Your task to perform on an android device: View the shopping cart on newegg.com. Image 0: 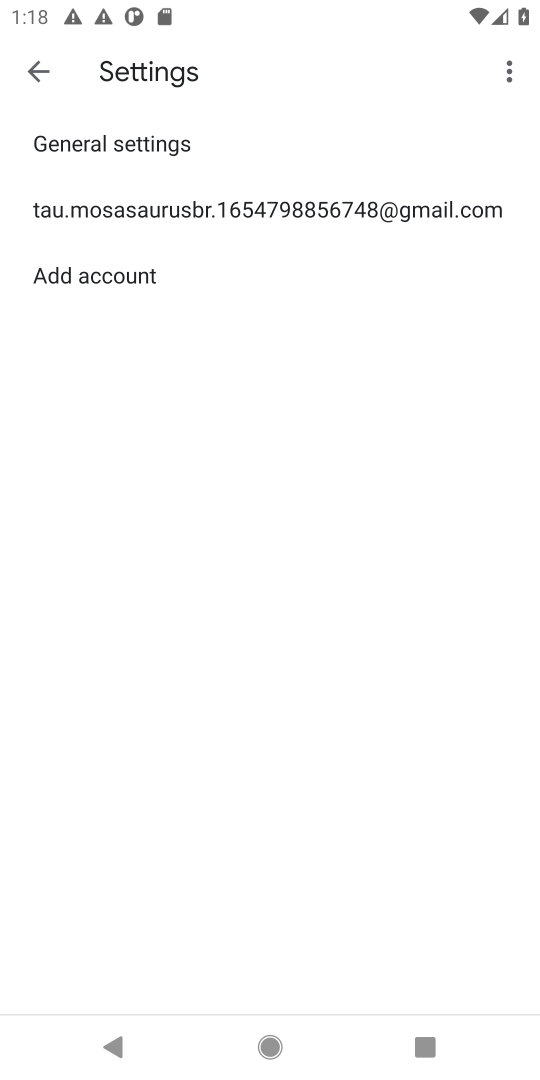
Step 0: press home button
Your task to perform on an android device: View the shopping cart on newegg.com. Image 1: 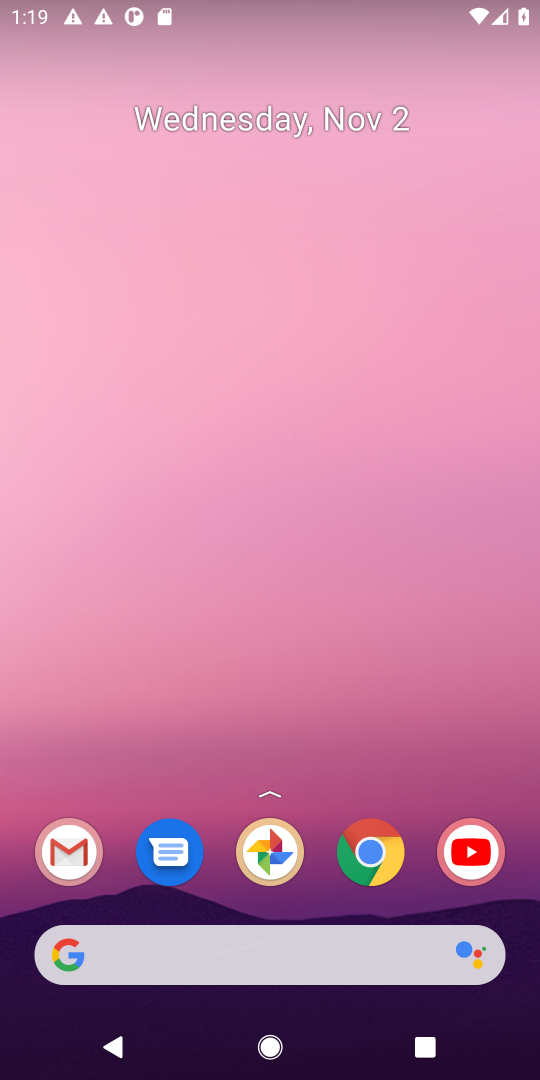
Step 1: click (60, 951)
Your task to perform on an android device: View the shopping cart on newegg.com. Image 2: 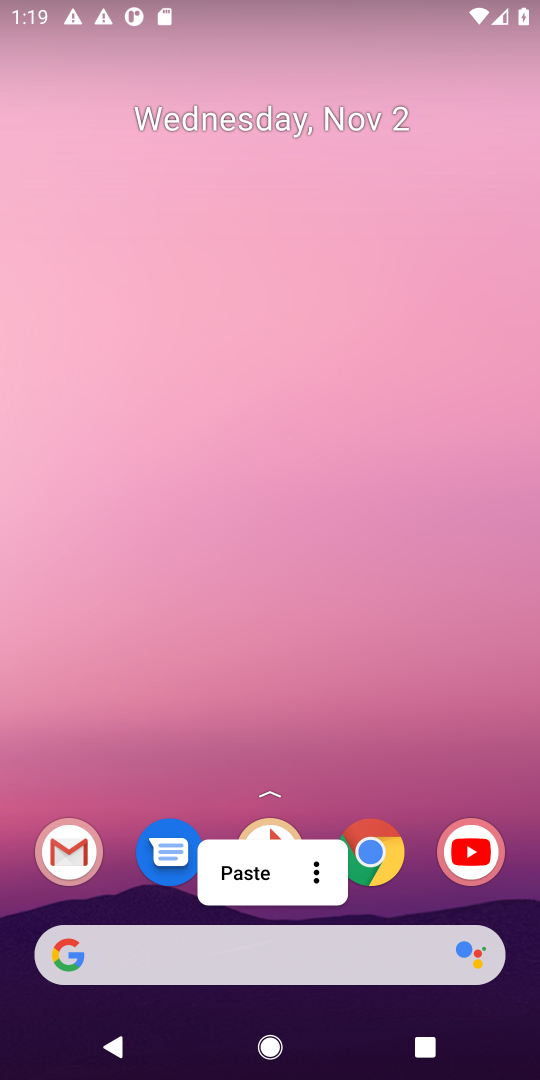
Step 2: click (69, 959)
Your task to perform on an android device: View the shopping cart on newegg.com. Image 3: 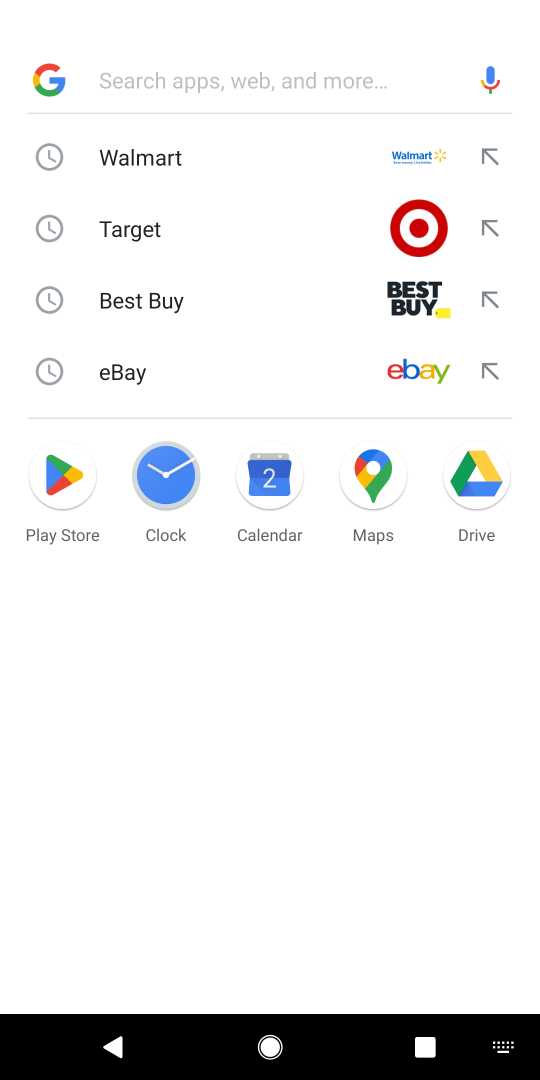
Step 3: type "newegg.com."
Your task to perform on an android device: View the shopping cart on newegg.com. Image 4: 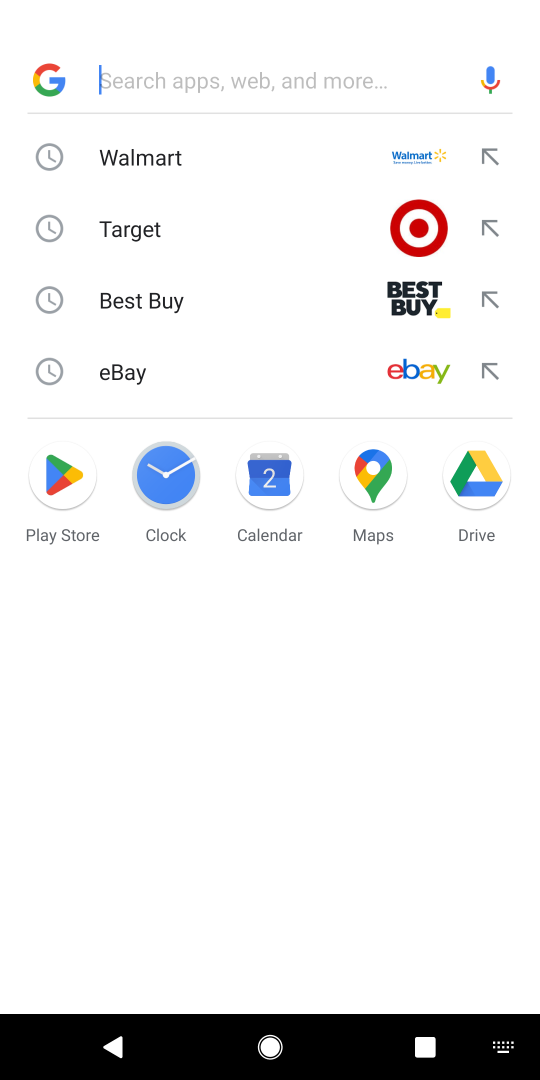
Step 4: click (142, 79)
Your task to perform on an android device: View the shopping cart on newegg.com. Image 5: 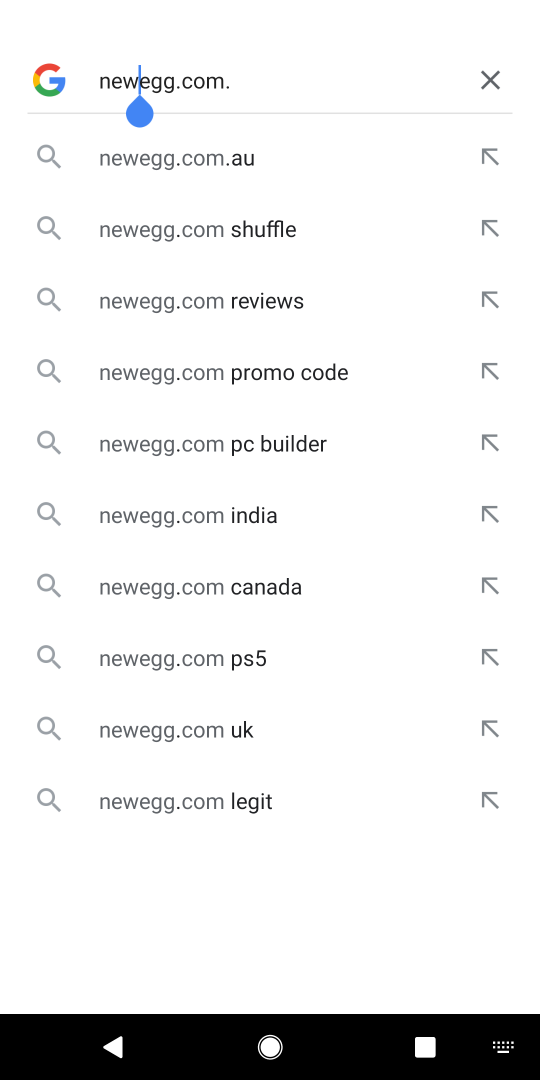
Step 5: press enter
Your task to perform on an android device: View the shopping cart on newegg.com. Image 6: 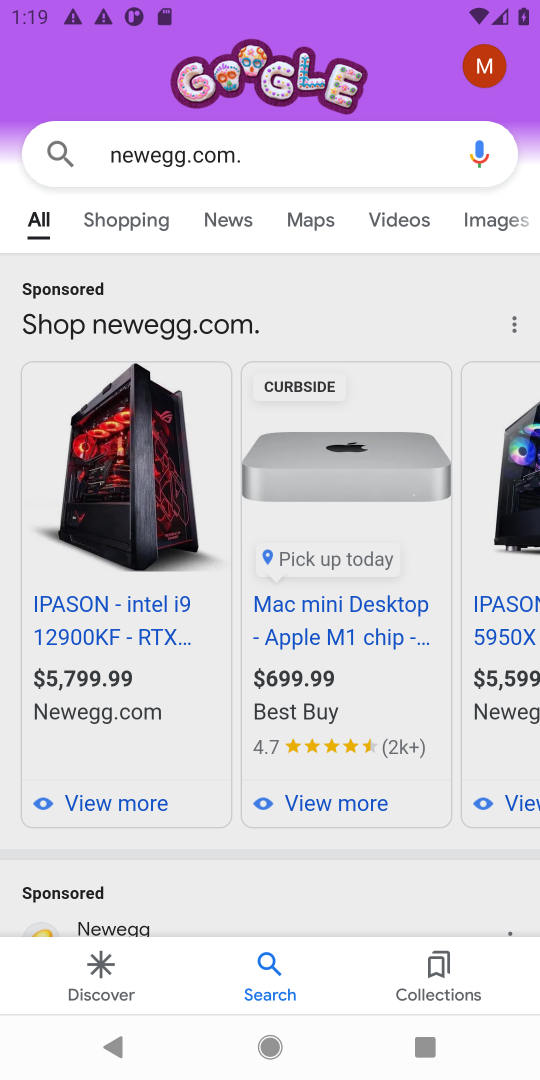
Step 6: drag from (229, 892) to (219, 351)
Your task to perform on an android device: View the shopping cart on newegg.com. Image 7: 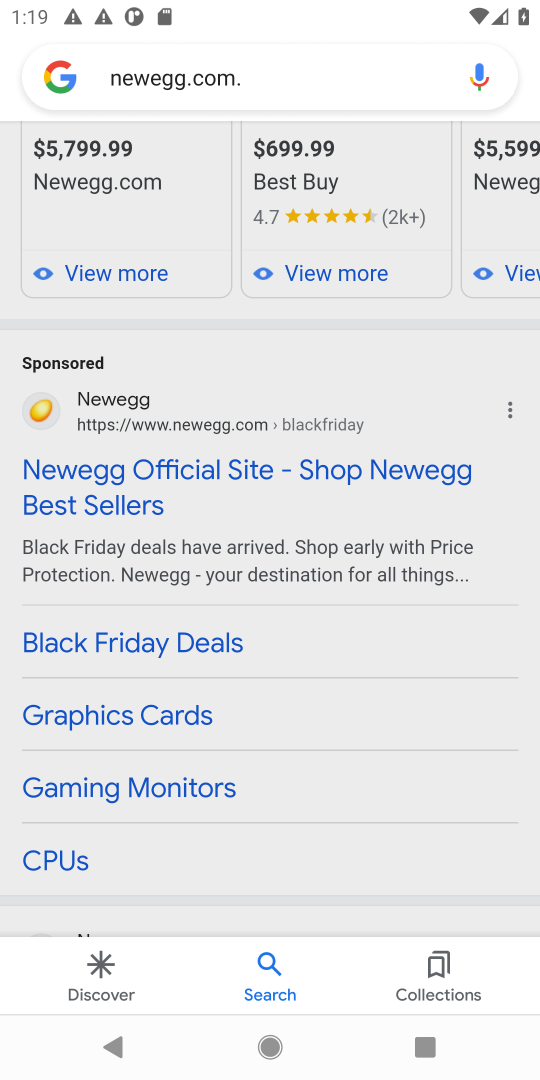
Step 7: click (118, 473)
Your task to perform on an android device: View the shopping cart on newegg.com. Image 8: 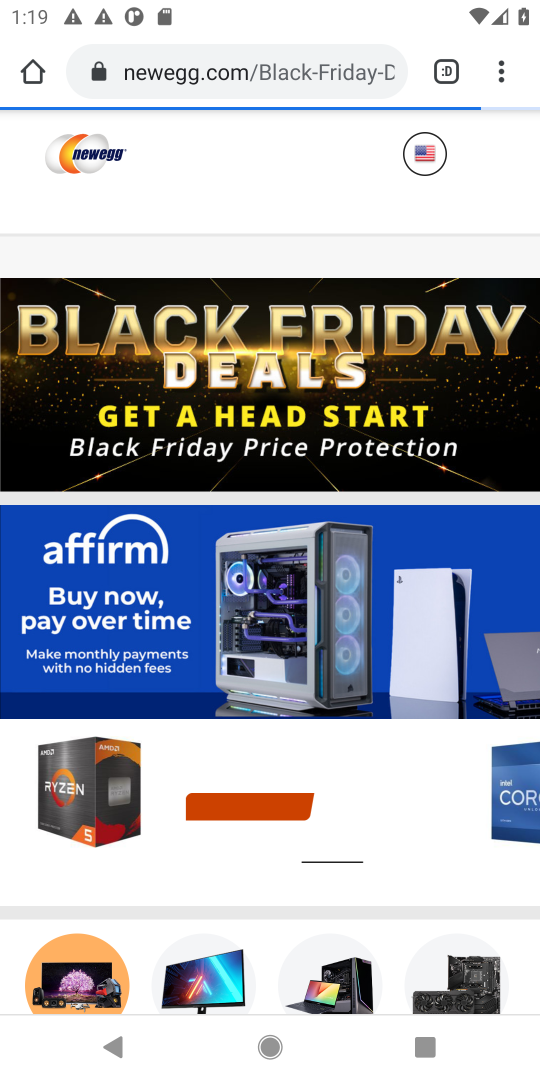
Step 8: drag from (344, 940) to (267, 311)
Your task to perform on an android device: View the shopping cart on newegg.com. Image 9: 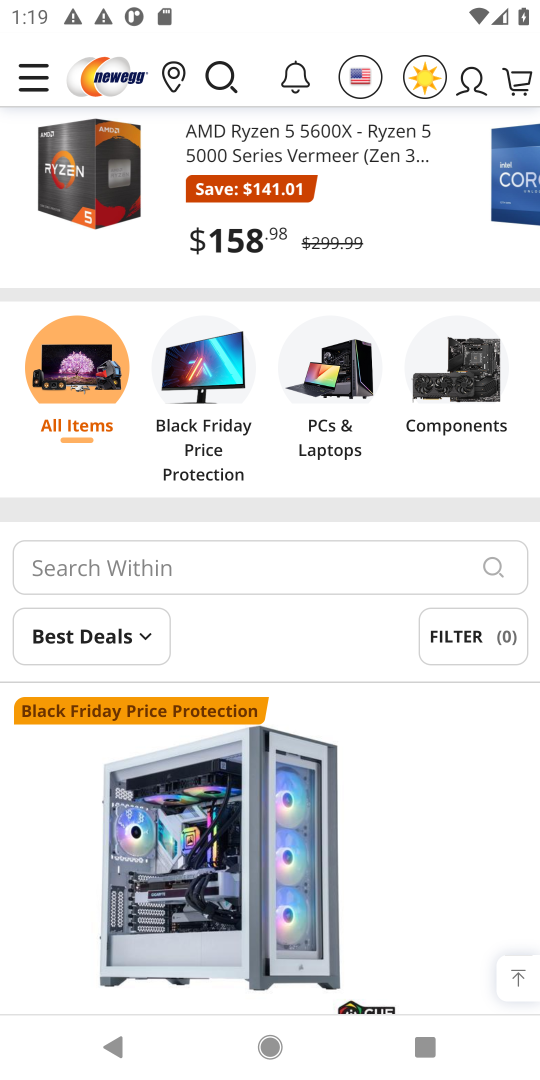
Step 9: drag from (450, 931) to (410, 583)
Your task to perform on an android device: View the shopping cart on newegg.com. Image 10: 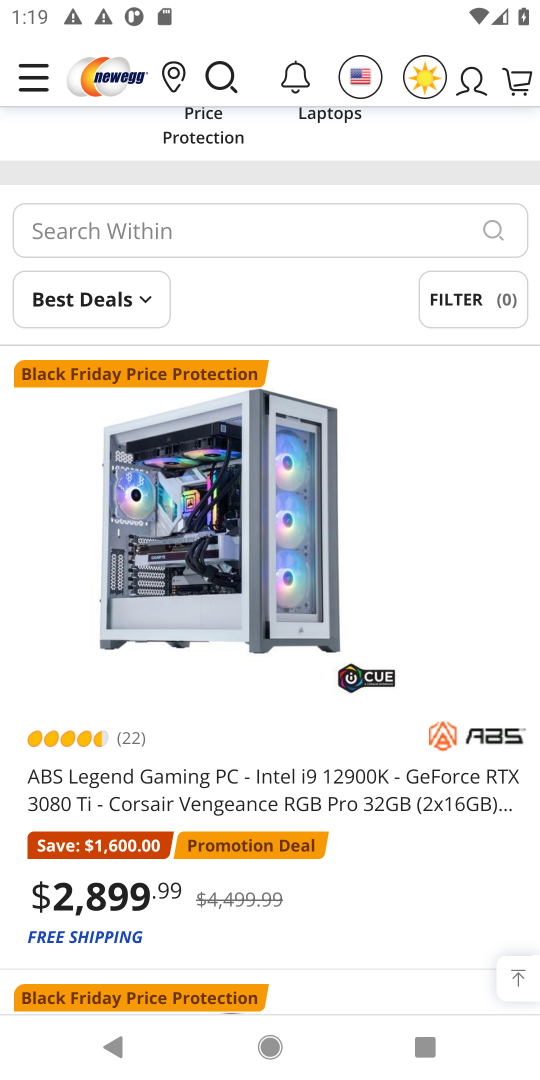
Step 10: click (519, 75)
Your task to perform on an android device: View the shopping cart on newegg.com. Image 11: 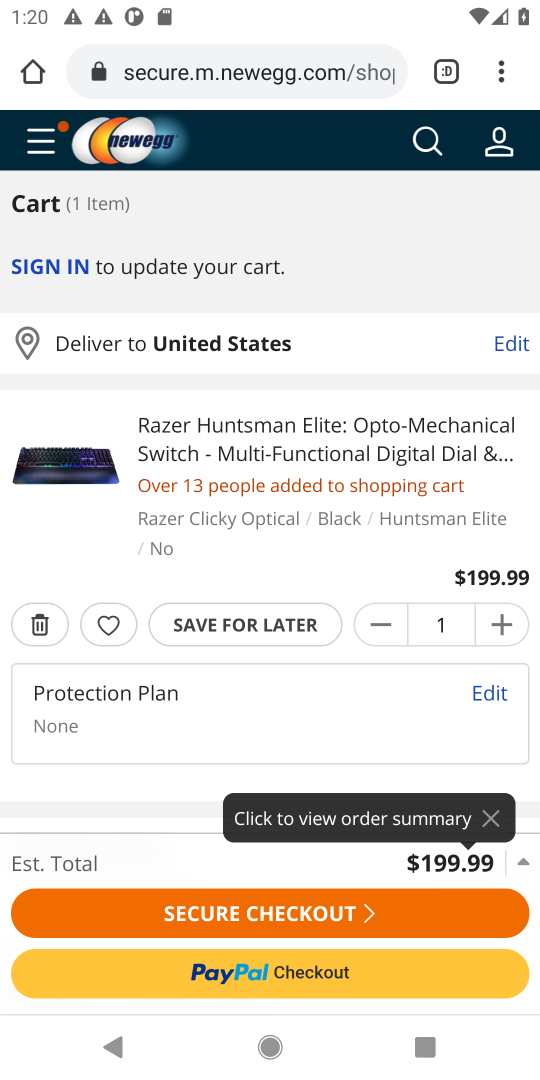
Step 11: task complete